Your task to perform on an android device: Open Google Chrome Image 0: 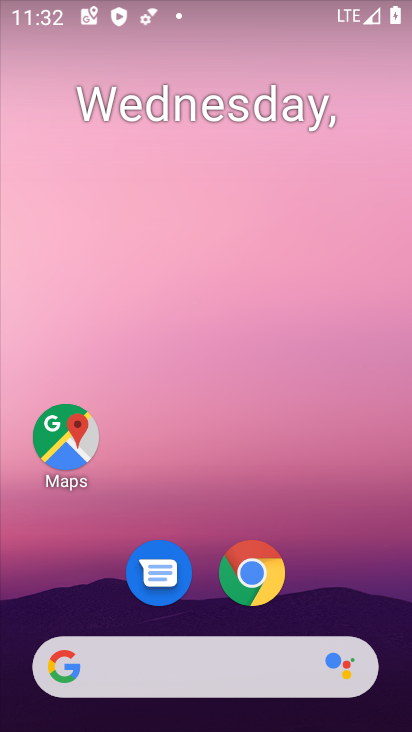
Step 0: click (247, 584)
Your task to perform on an android device: Open Google Chrome Image 1: 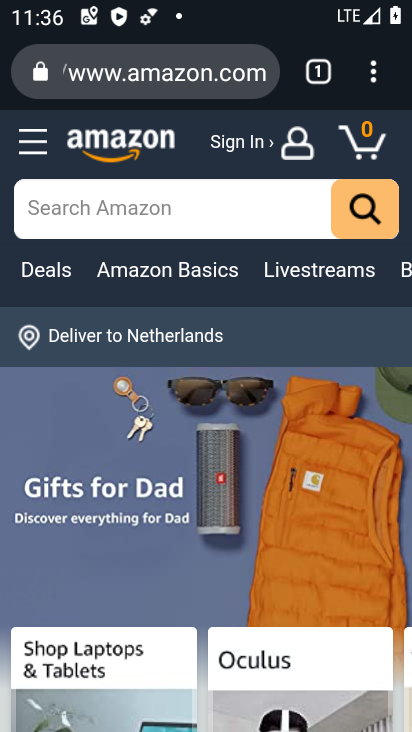
Step 1: task complete